Your task to perform on an android device: Search for vegetarian restaurants on Maps Image 0: 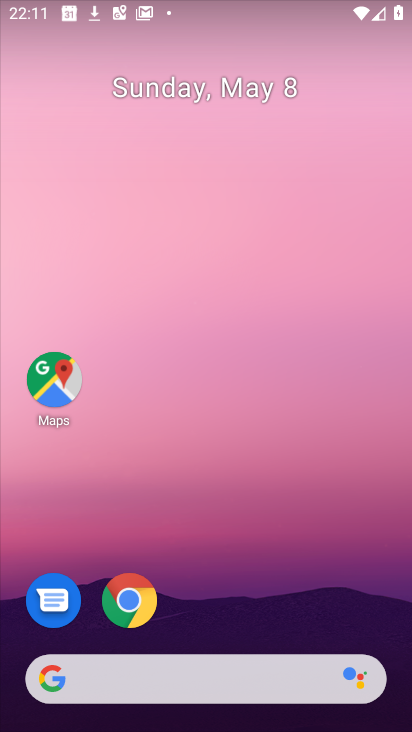
Step 0: drag from (224, 666) to (337, 85)
Your task to perform on an android device: Search for vegetarian restaurants on Maps Image 1: 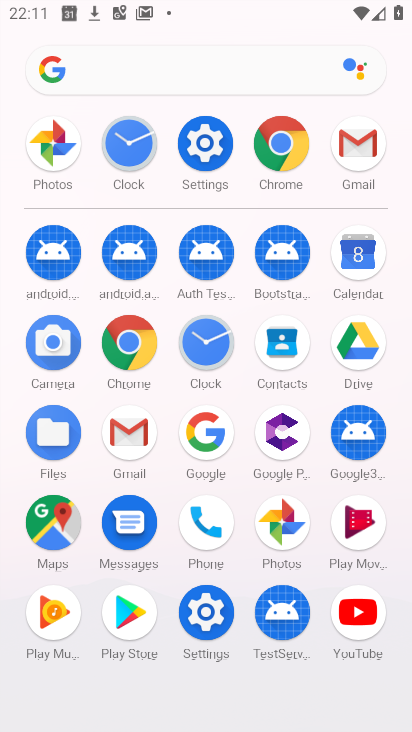
Step 1: click (54, 540)
Your task to perform on an android device: Search for vegetarian restaurants on Maps Image 2: 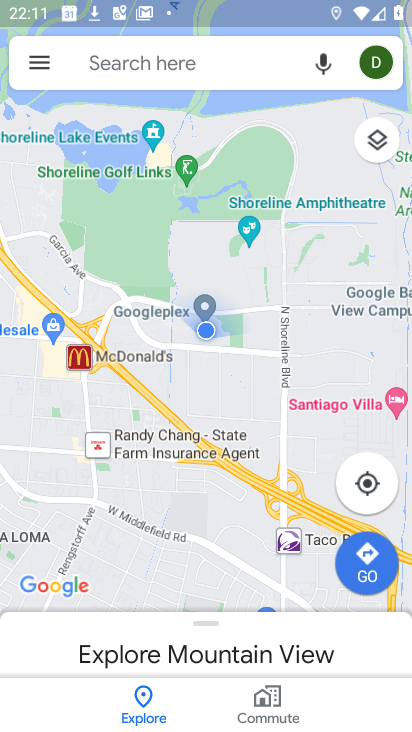
Step 2: click (119, 72)
Your task to perform on an android device: Search for vegetarian restaurants on Maps Image 3: 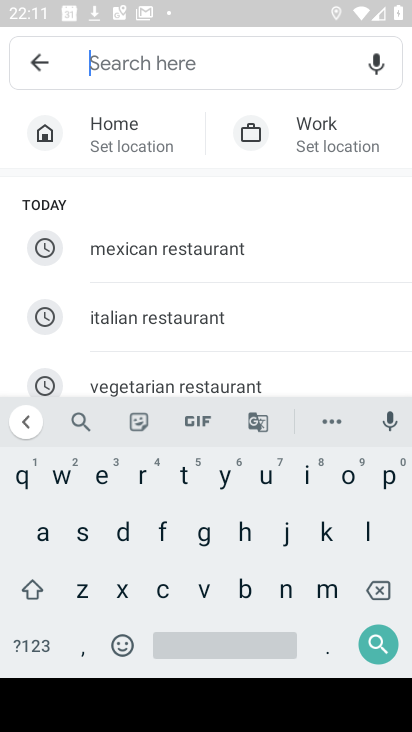
Step 3: click (187, 386)
Your task to perform on an android device: Search for vegetarian restaurants on Maps Image 4: 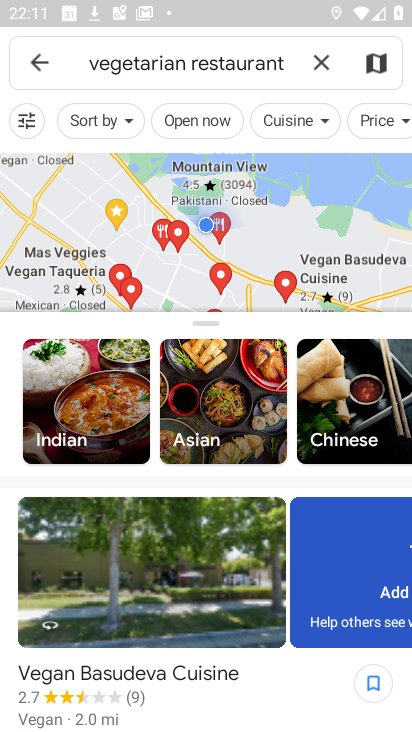
Step 4: click (190, 278)
Your task to perform on an android device: Search for vegetarian restaurants on Maps Image 5: 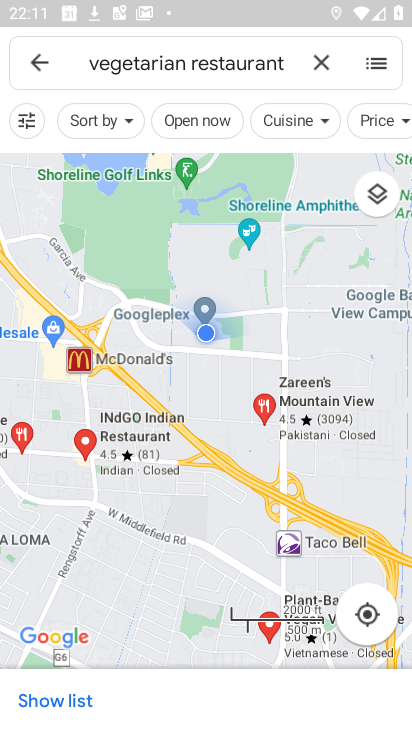
Step 5: task complete